Your task to perform on an android device: Go to settings Image 0: 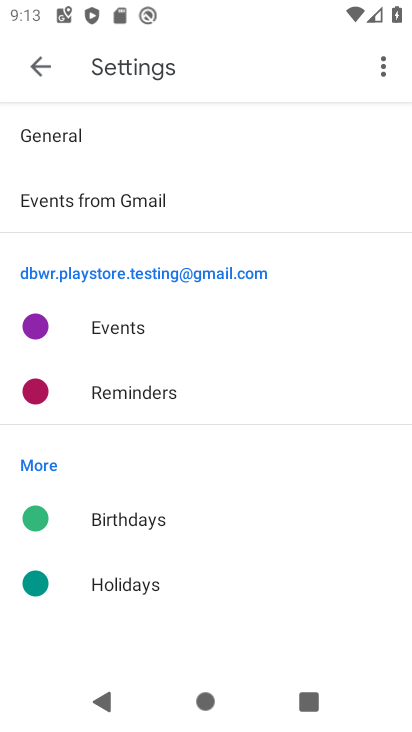
Step 0: press home button
Your task to perform on an android device: Go to settings Image 1: 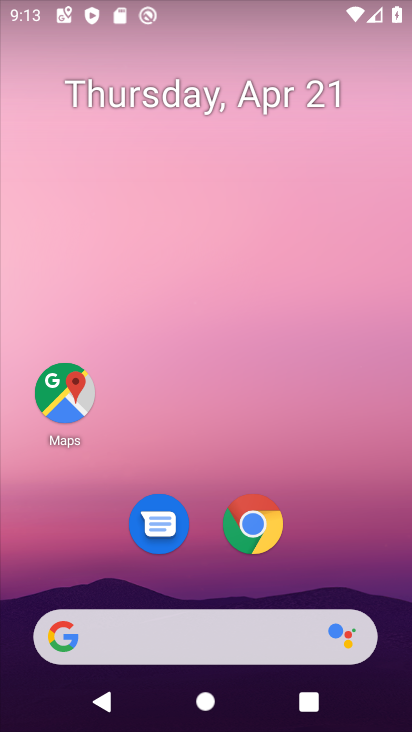
Step 1: drag from (329, 536) to (334, 98)
Your task to perform on an android device: Go to settings Image 2: 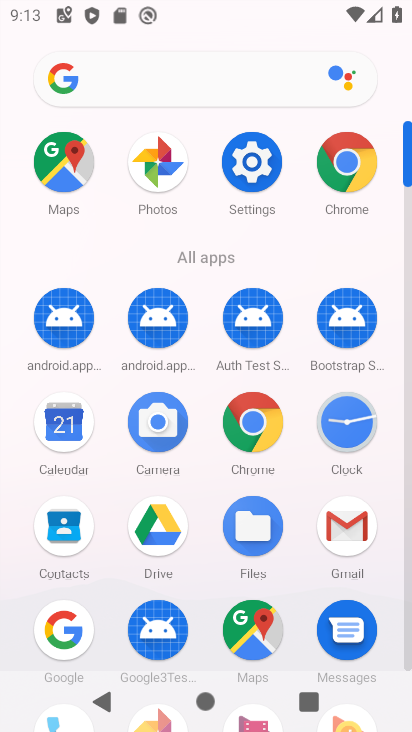
Step 2: click (253, 156)
Your task to perform on an android device: Go to settings Image 3: 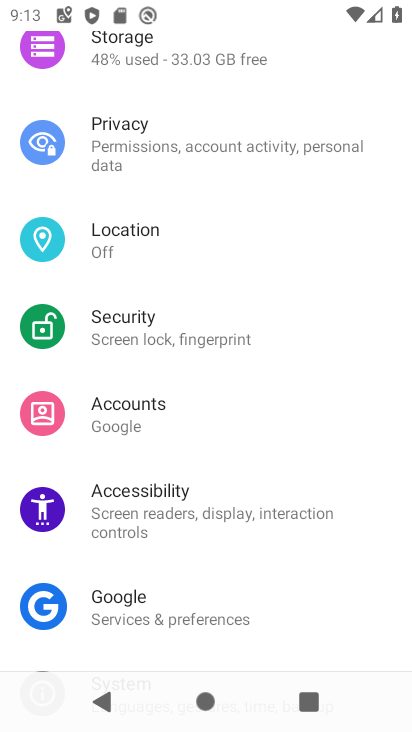
Step 3: task complete